Your task to perform on an android device: Open Reddit.com Image 0: 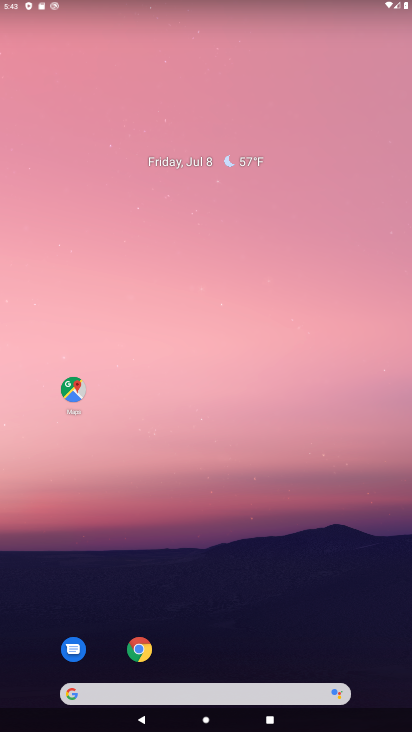
Step 0: drag from (128, 632) to (162, 0)
Your task to perform on an android device: Open Reddit.com Image 1: 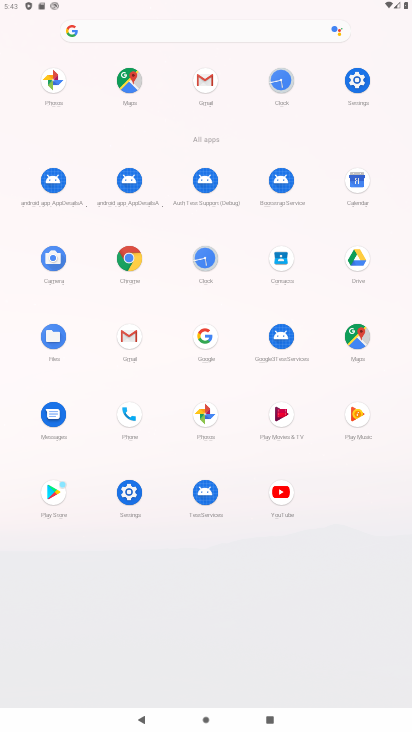
Step 1: click (131, 261)
Your task to perform on an android device: Open Reddit.com Image 2: 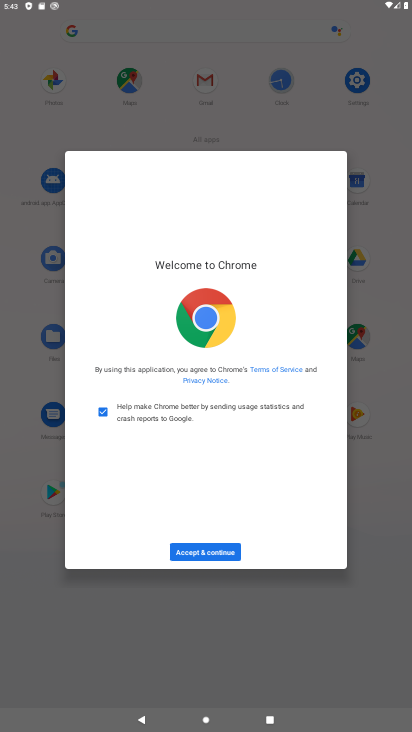
Step 2: click (214, 553)
Your task to perform on an android device: Open Reddit.com Image 3: 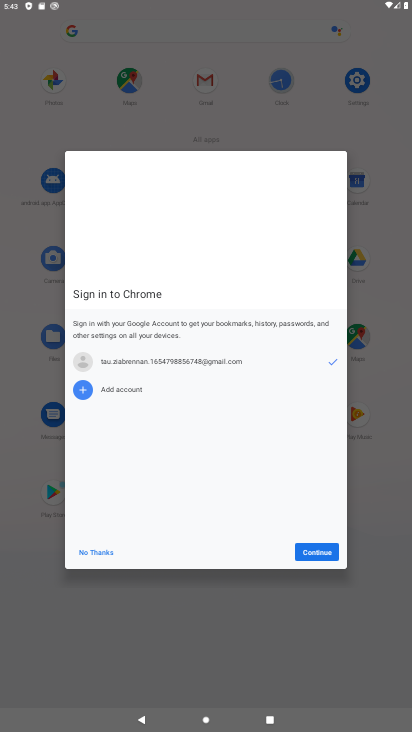
Step 3: click (90, 554)
Your task to perform on an android device: Open Reddit.com Image 4: 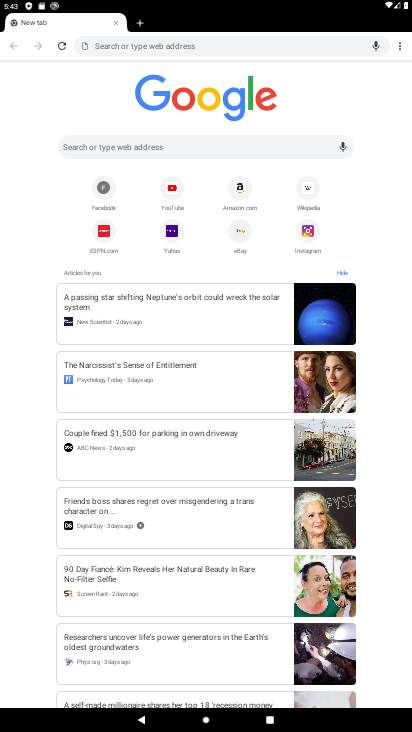
Step 4: click (183, 42)
Your task to perform on an android device: Open Reddit.com Image 5: 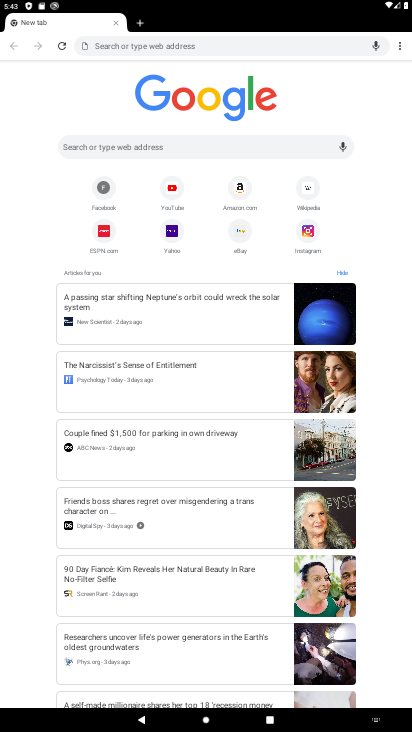
Step 5: type "reddit.com"
Your task to perform on an android device: Open Reddit.com Image 6: 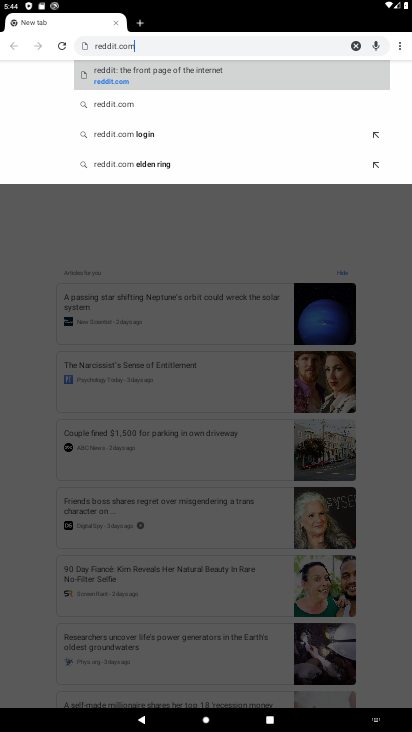
Step 6: click (167, 78)
Your task to perform on an android device: Open Reddit.com Image 7: 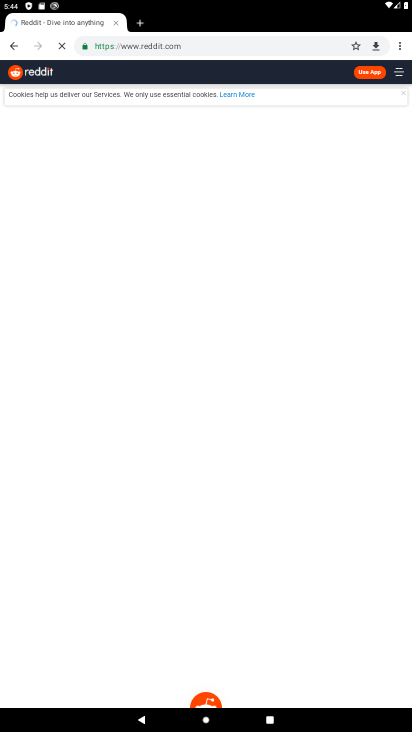
Step 7: task complete